Your task to perform on an android device: Go to Reddit.com Image 0: 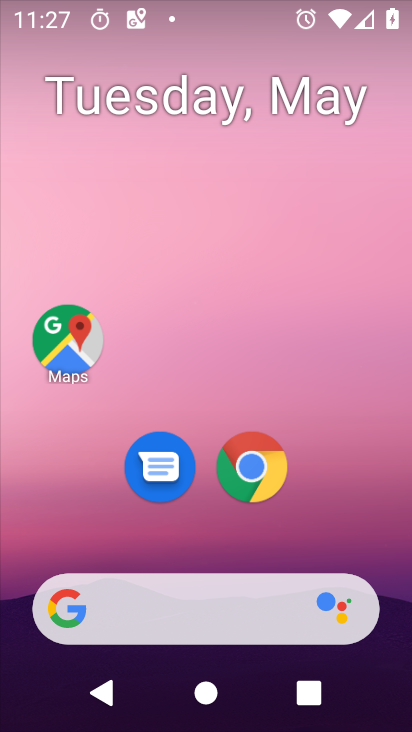
Step 0: drag from (312, 381) to (249, 0)
Your task to perform on an android device: Go to Reddit.com Image 1: 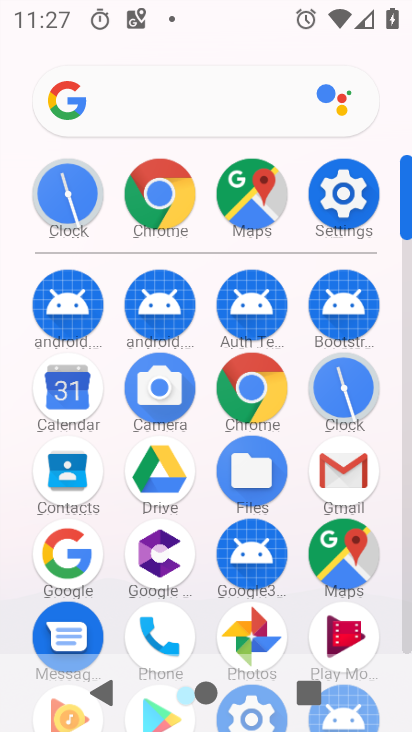
Step 1: drag from (15, 531) to (14, 218)
Your task to perform on an android device: Go to Reddit.com Image 2: 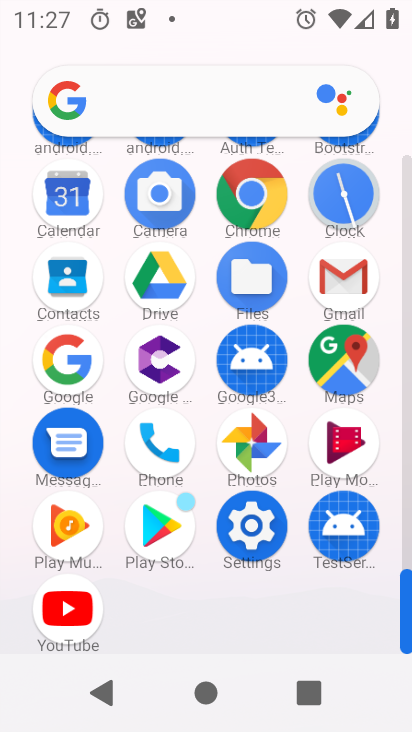
Step 2: click (256, 193)
Your task to perform on an android device: Go to Reddit.com Image 3: 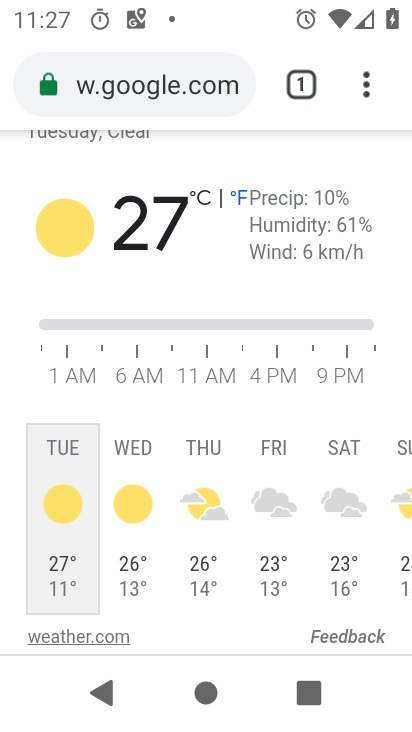
Step 3: click (157, 65)
Your task to perform on an android device: Go to Reddit.com Image 4: 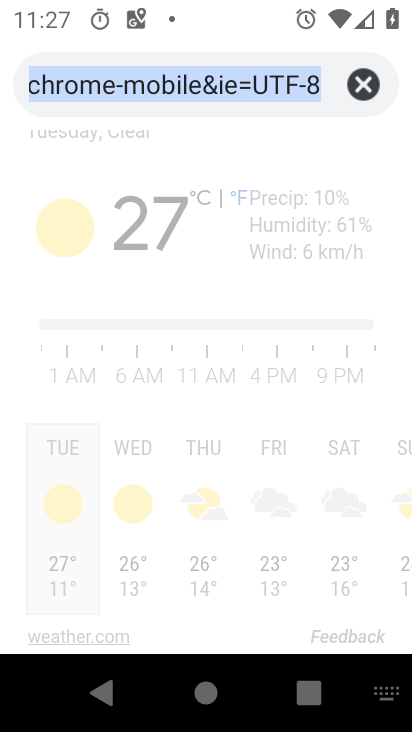
Step 4: click (367, 84)
Your task to perform on an android device: Go to Reddit.com Image 5: 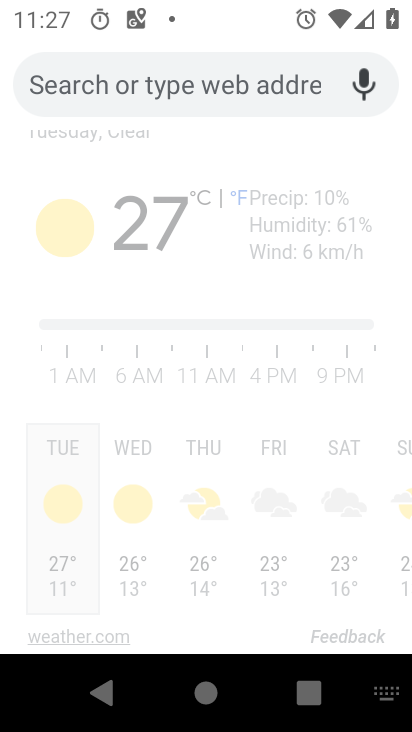
Step 5: type "Reddit.com"
Your task to perform on an android device: Go to Reddit.com Image 6: 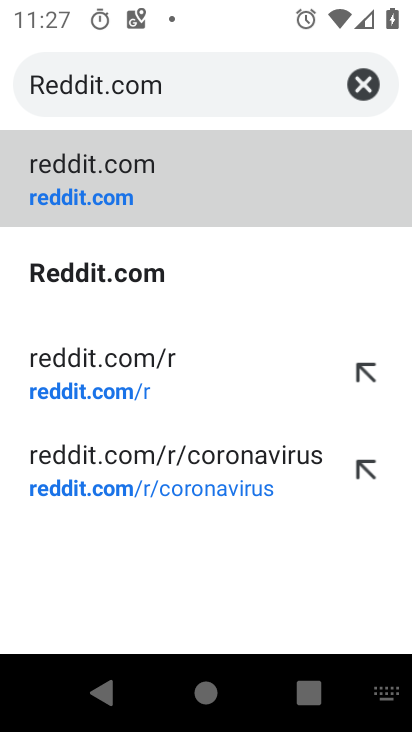
Step 6: click (264, 171)
Your task to perform on an android device: Go to Reddit.com Image 7: 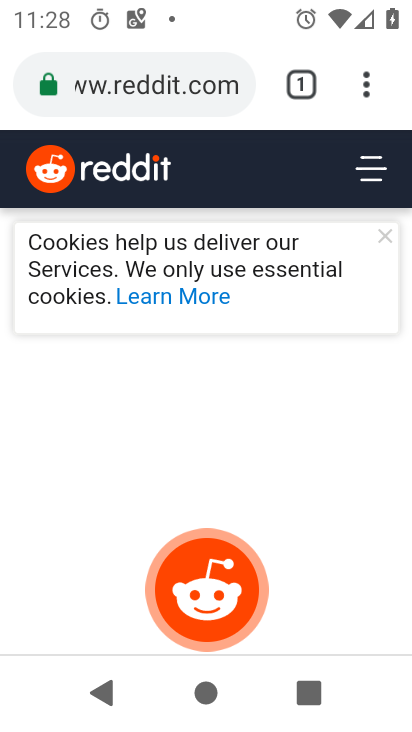
Step 7: task complete